Your task to perform on an android device: Is it going to rain this weekend? Image 0: 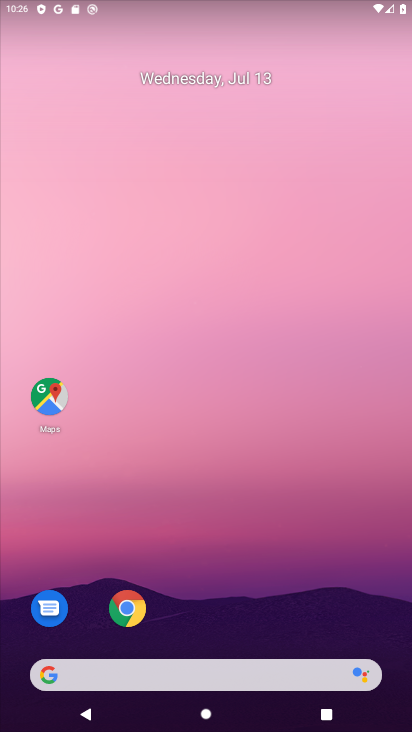
Step 0: click (216, 670)
Your task to perform on an android device: Is it going to rain this weekend? Image 1: 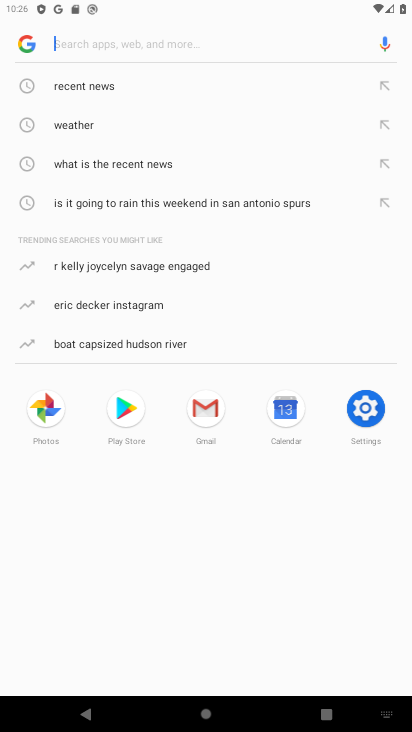
Step 1: type "Is it going to rain this weekend"
Your task to perform on an android device: Is it going to rain this weekend? Image 2: 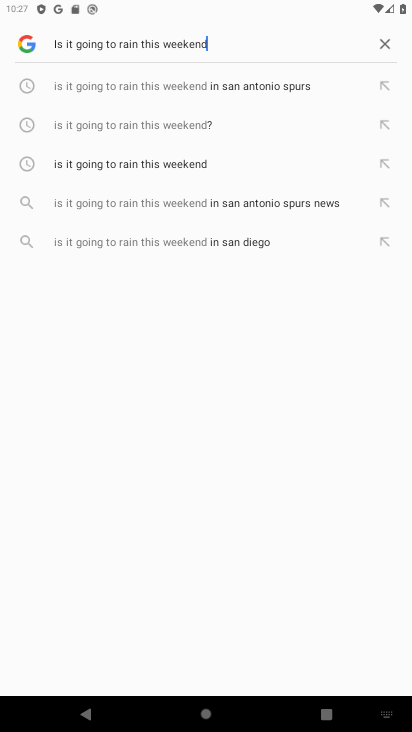
Step 2: click (199, 129)
Your task to perform on an android device: Is it going to rain this weekend? Image 3: 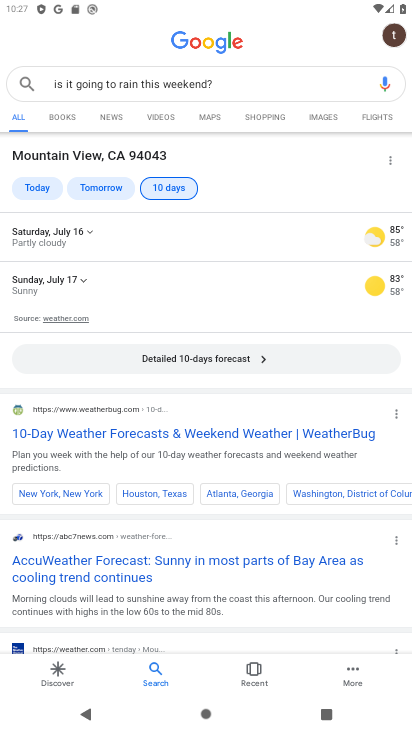
Step 3: task complete